Your task to perform on an android device: check android version Image 0: 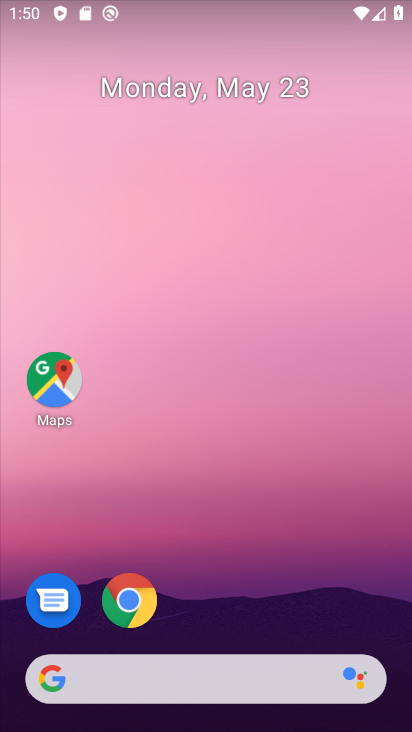
Step 0: drag from (235, 636) to (254, 56)
Your task to perform on an android device: check android version Image 1: 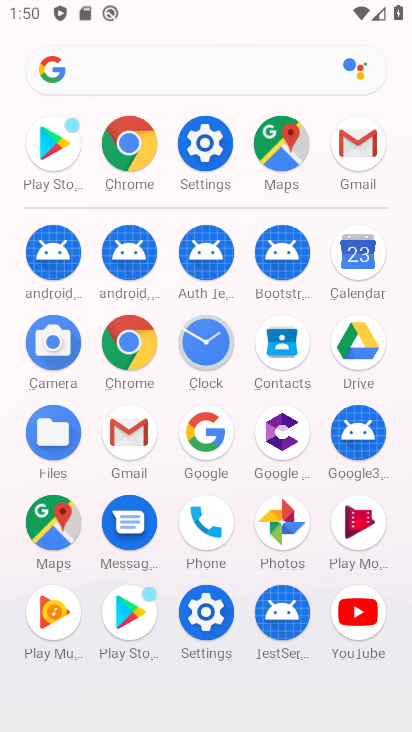
Step 1: click (216, 119)
Your task to perform on an android device: check android version Image 2: 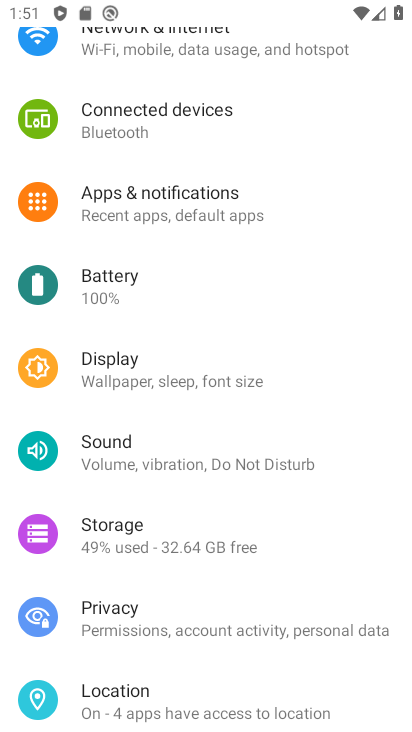
Step 2: task complete